Your task to perform on an android device: Go to Android settings Image 0: 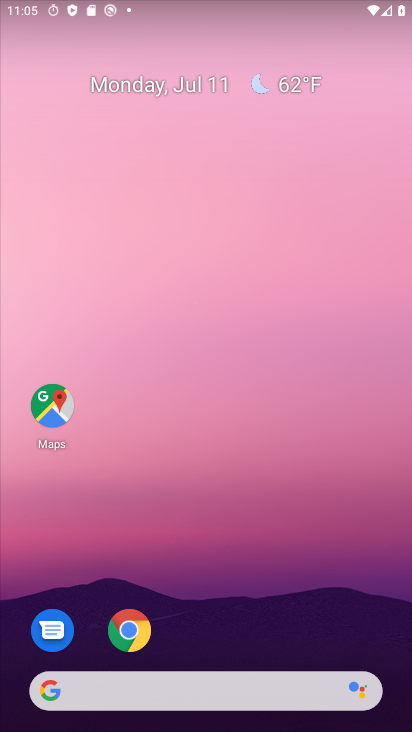
Step 0: drag from (335, 678) to (278, 2)
Your task to perform on an android device: Go to Android settings Image 1: 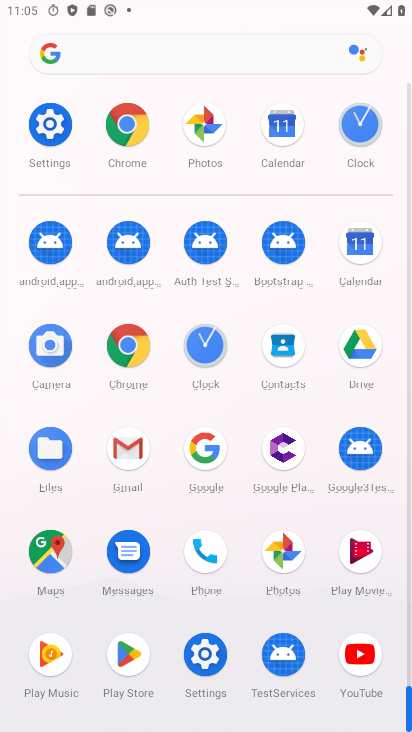
Step 1: click (48, 122)
Your task to perform on an android device: Go to Android settings Image 2: 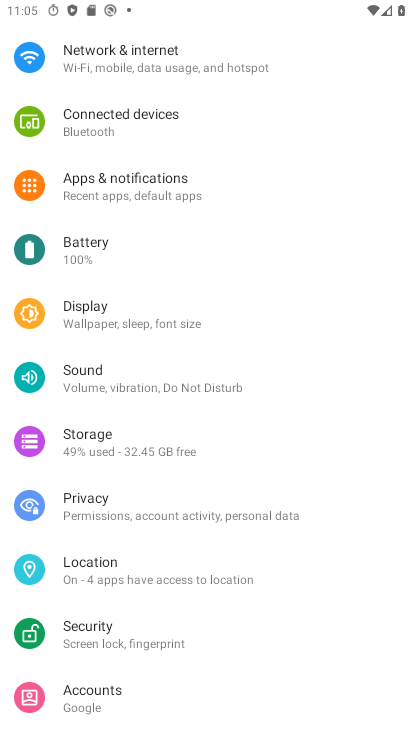
Step 2: drag from (341, 255) to (338, 8)
Your task to perform on an android device: Go to Android settings Image 3: 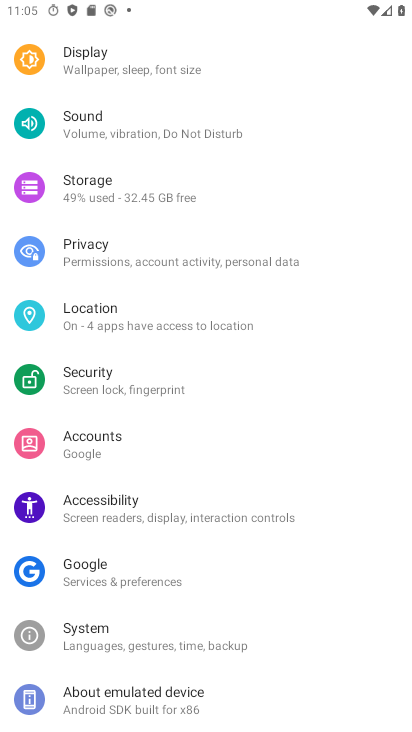
Step 3: click (205, 710)
Your task to perform on an android device: Go to Android settings Image 4: 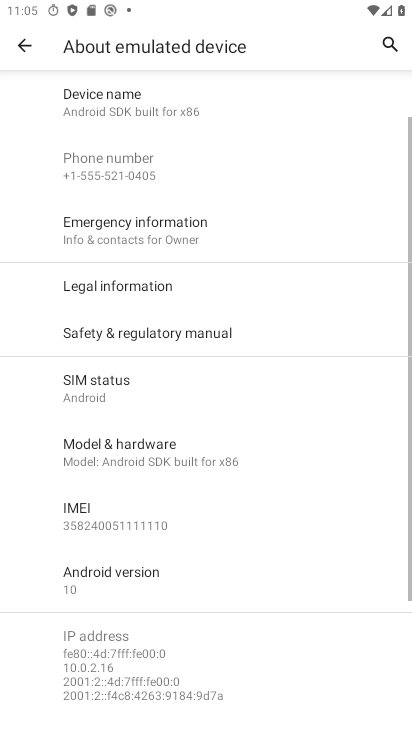
Step 4: click (114, 587)
Your task to perform on an android device: Go to Android settings Image 5: 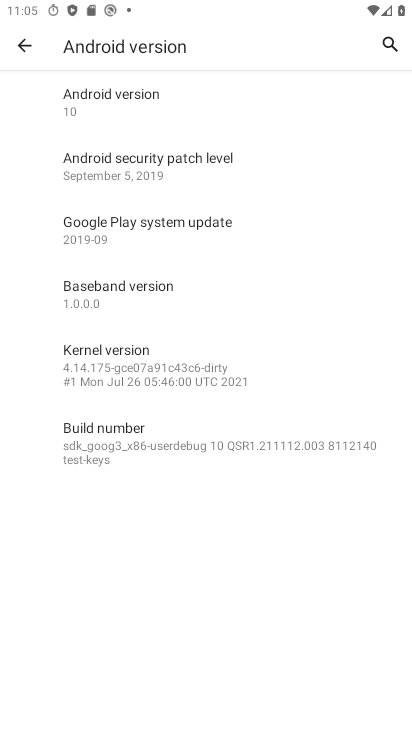
Step 5: task complete